Your task to perform on an android device: delete the emails in spam in the gmail app Image 0: 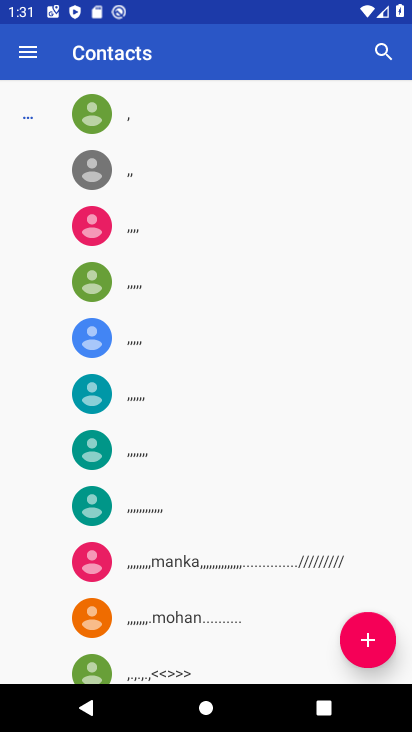
Step 0: press home button
Your task to perform on an android device: delete the emails in spam in the gmail app Image 1: 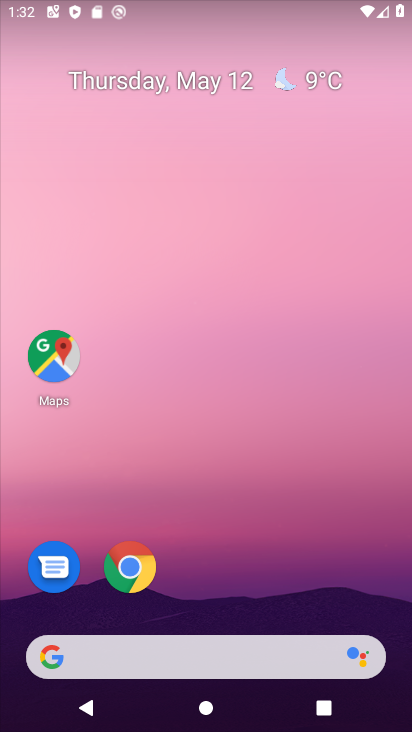
Step 1: drag from (208, 577) to (242, 116)
Your task to perform on an android device: delete the emails in spam in the gmail app Image 2: 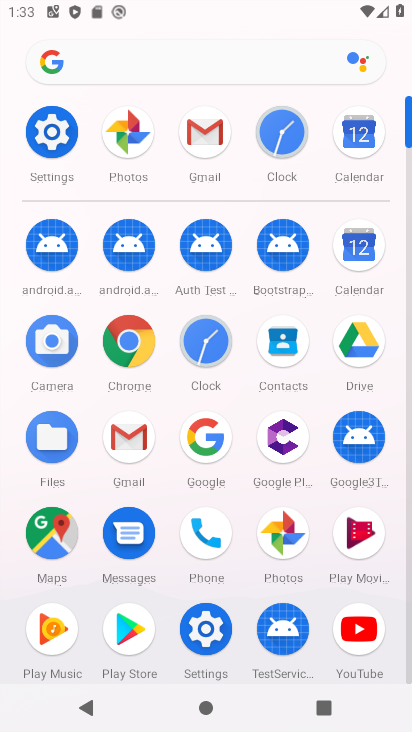
Step 2: click (128, 439)
Your task to perform on an android device: delete the emails in spam in the gmail app Image 3: 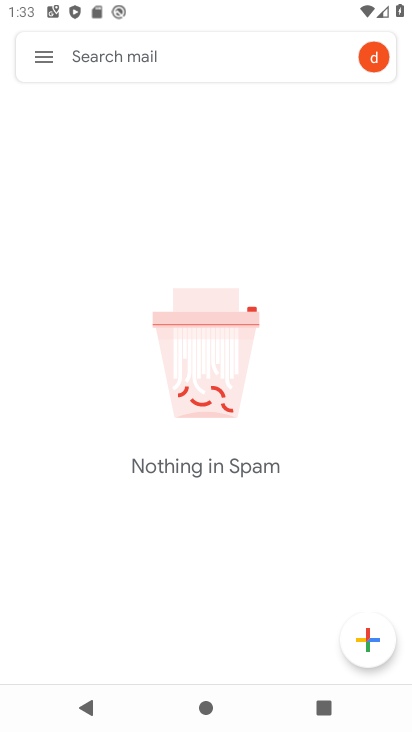
Step 3: task complete